Your task to perform on an android device: delete a single message in the gmail app Image 0: 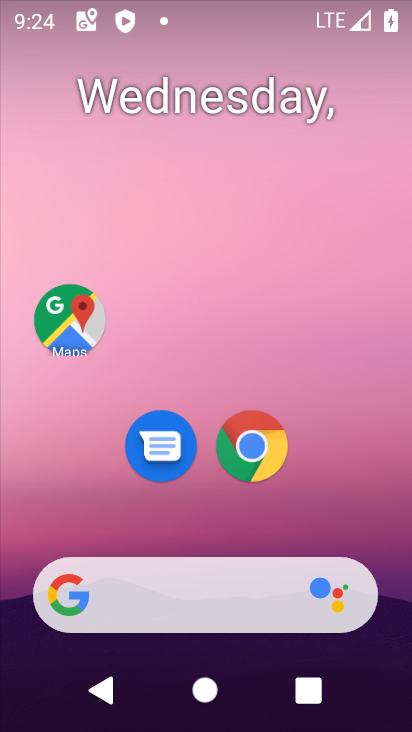
Step 0: press home button
Your task to perform on an android device: delete a single message in the gmail app Image 1: 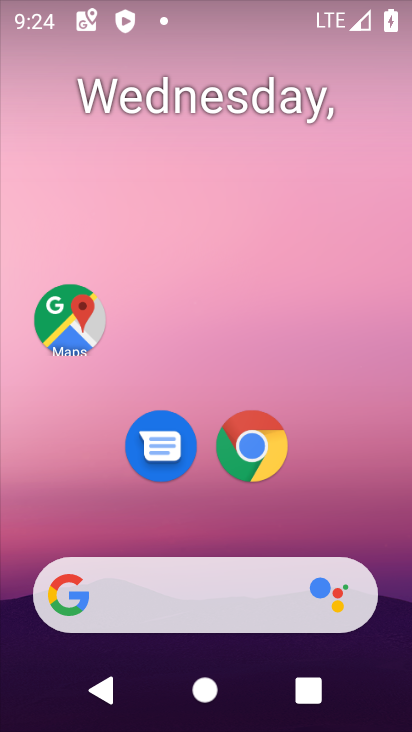
Step 1: drag from (202, 603) to (352, 70)
Your task to perform on an android device: delete a single message in the gmail app Image 2: 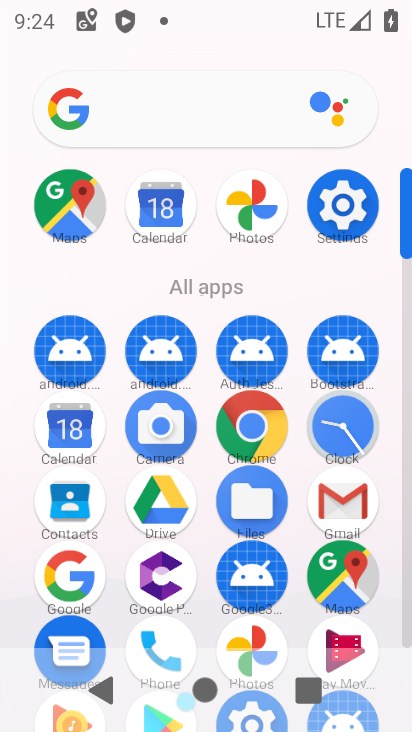
Step 2: click (354, 504)
Your task to perform on an android device: delete a single message in the gmail app Image 3: 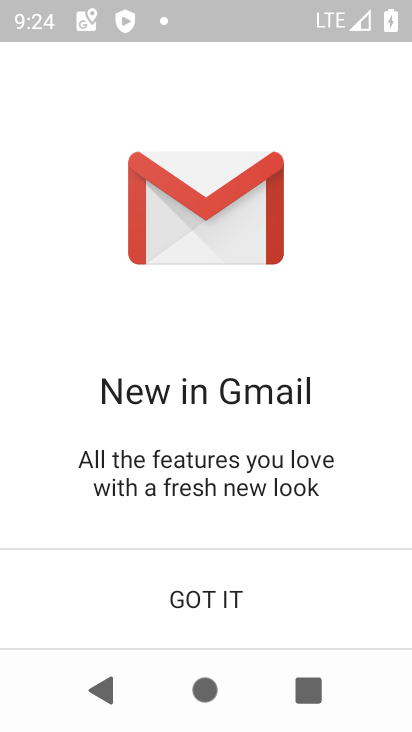
Step 3: click (235, 598)
Your task to perform on an android device: delete a single message in the gmail app Image 4: 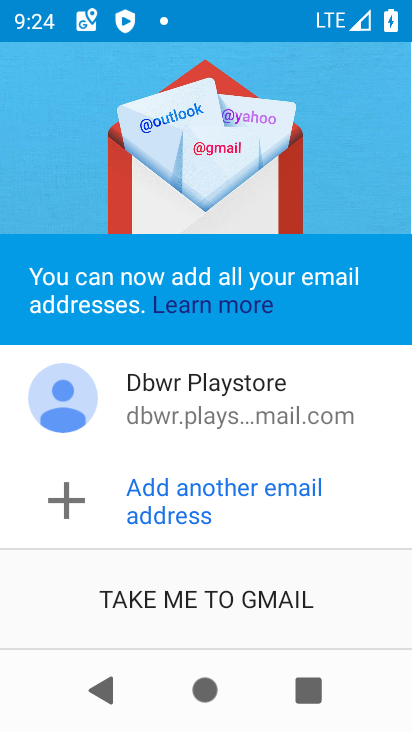
Step 4: click (224, 610)
Your task to perform on an android device: delete a single message in the gmail app Image 5: 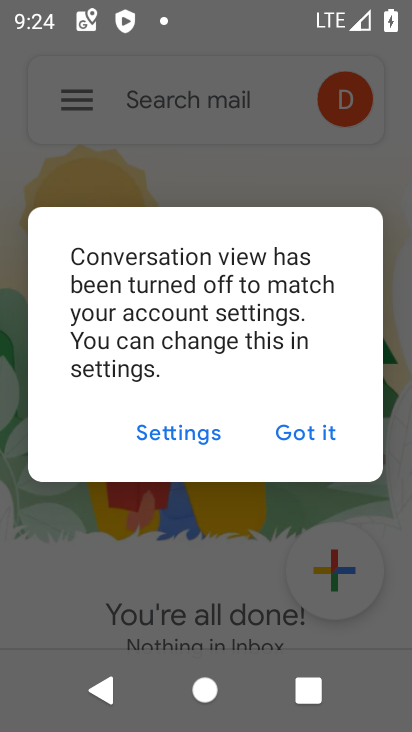
Step 5: click (316, 435)
Your task to perform on an android device: delete a single message in the gmail app Image 6: 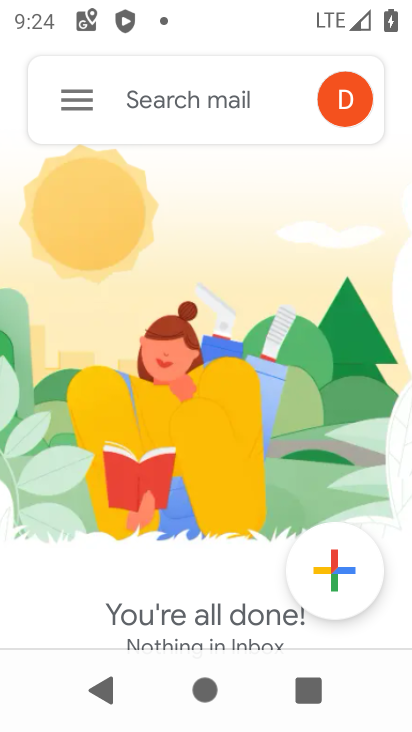
Step 6: task complete